Your task to perform on an android device: check storage Image 0: 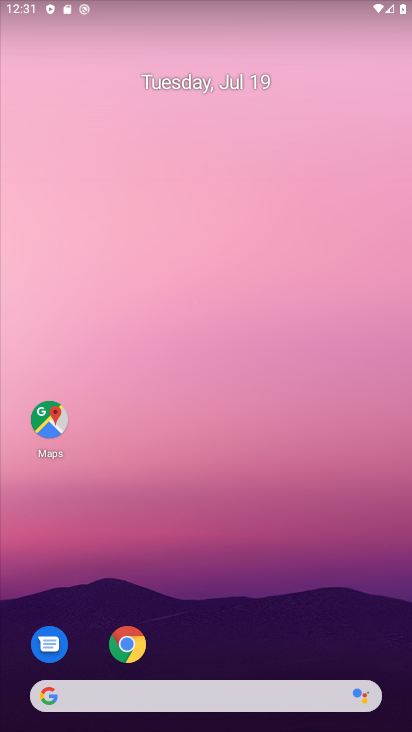
Step 0: drag from (302, 634) to (259, 85)
Your task to perform on an android device: check storage Image 1: 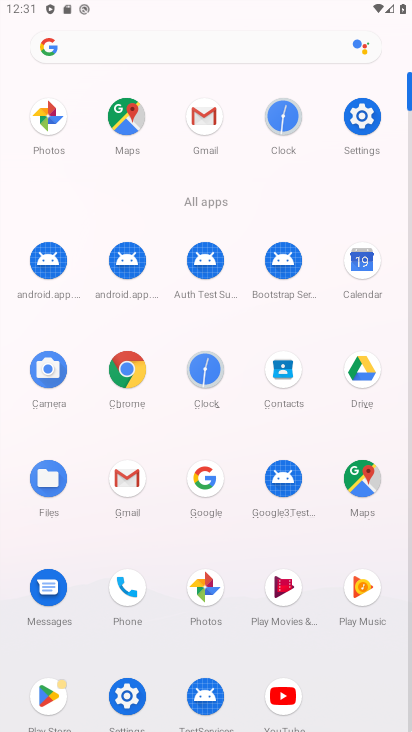
Step 1: click (366, 120)
Your task to perform on an android device: check storage Image 2: 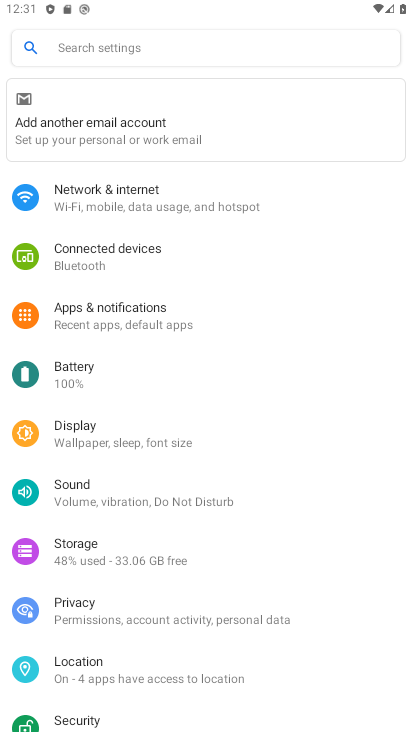
Step 2: click (244, 561)
Your task to perform on an android device: check storage Image 3: 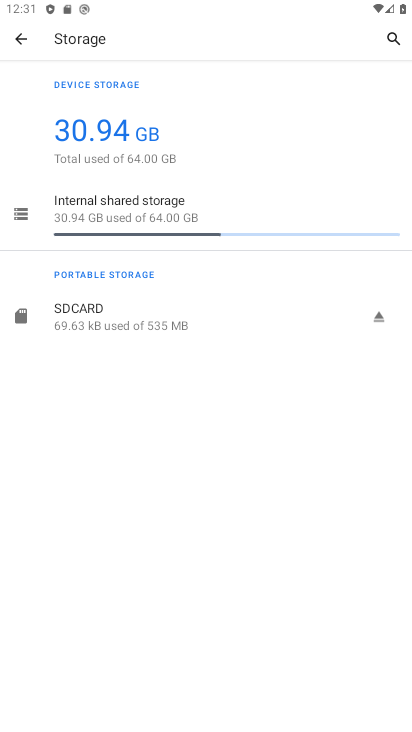
Step 3: task complete